Your task to perform on an android device: turn on javascript in the chrome app Image 0: 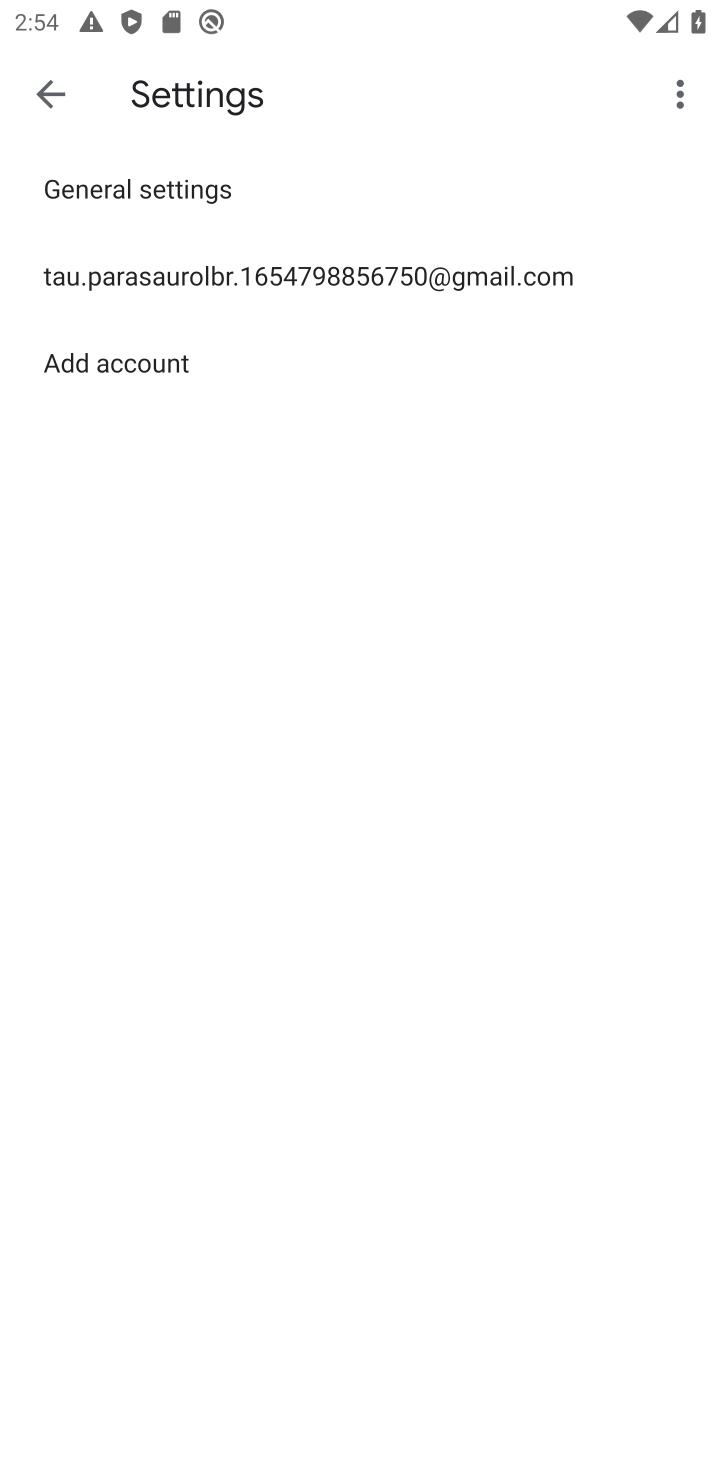
Step 0: press home button
Your task to perform on an android device: turn on javascript in the chrome app Image 1: 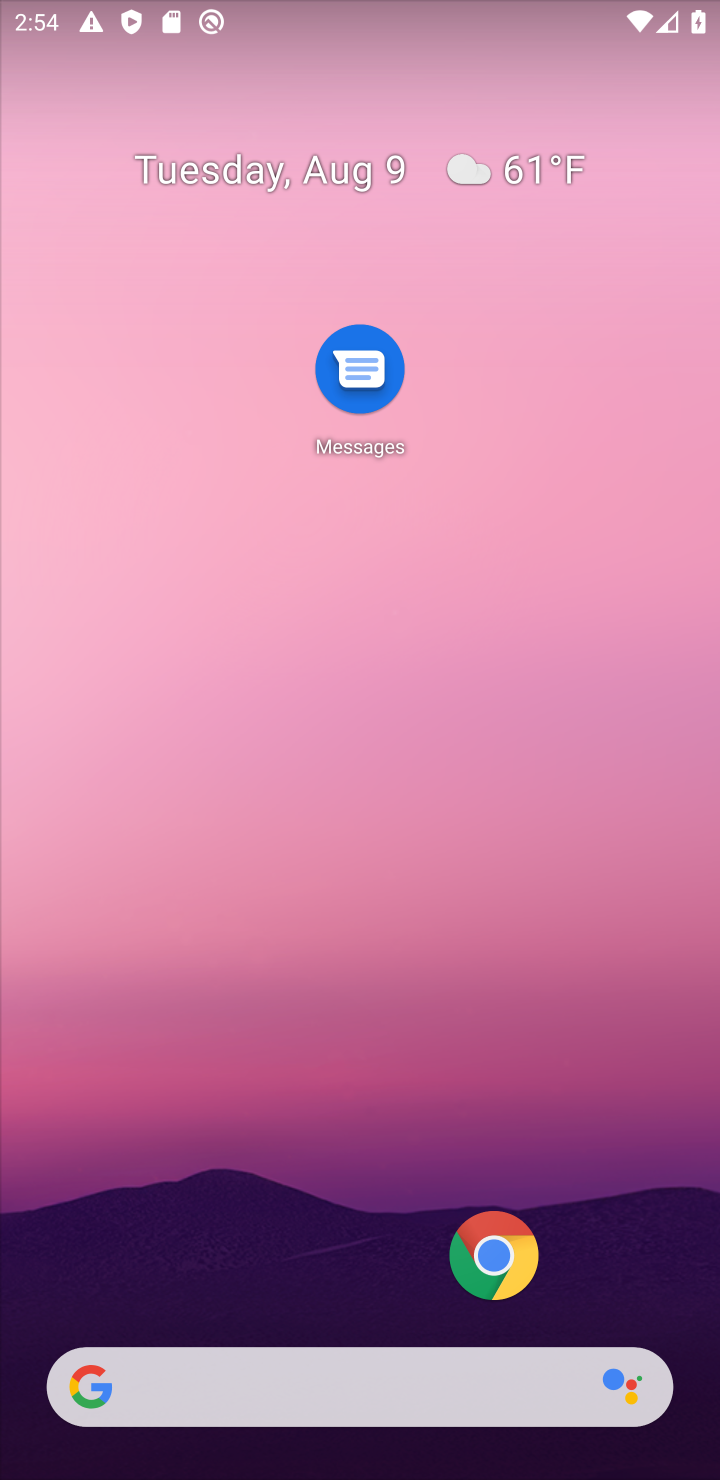
Step 1: drag from (301, 1266) to (329, 234)
Your task to perform on an android device: turn on javascript in the chrome app Image 2: 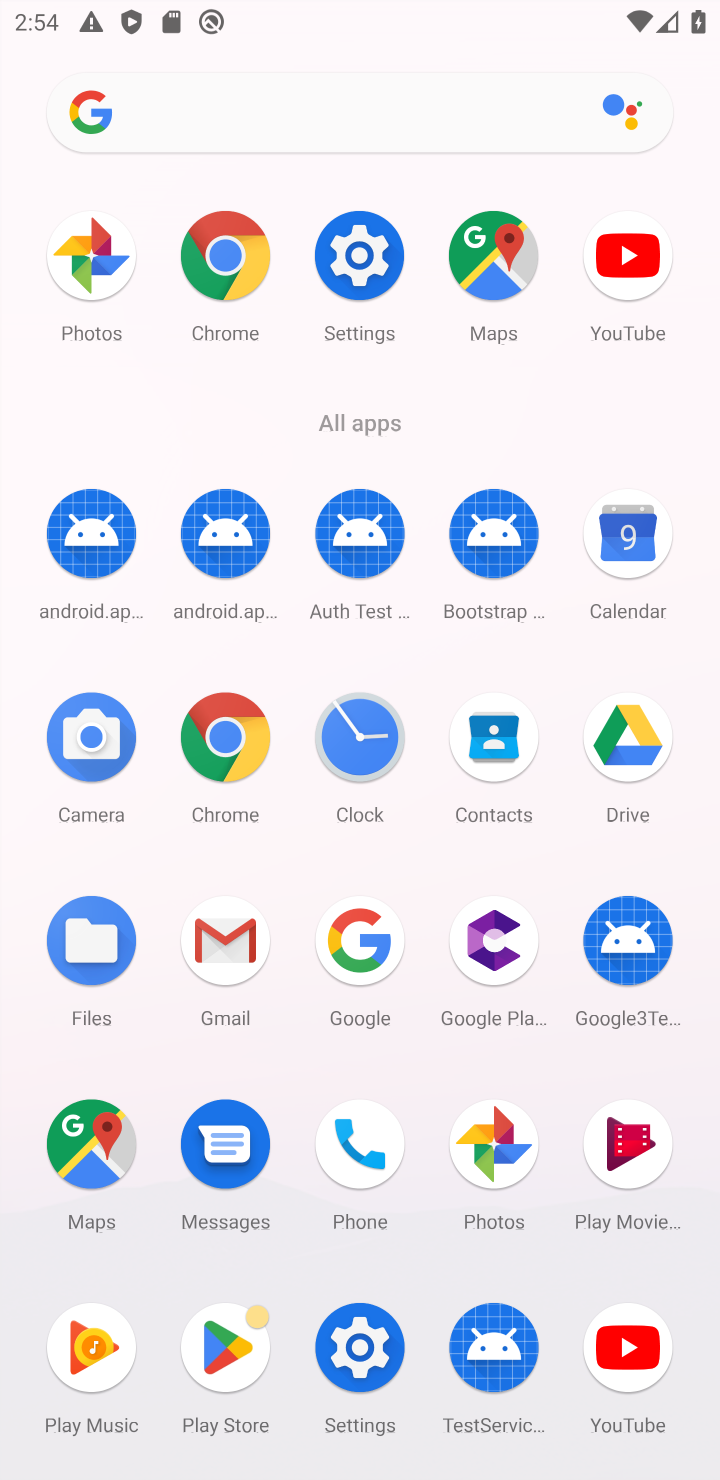
Step 2: drag from (225, 344) to (225, 269)
Your task to perform on an android device: turn on javascript in the chrome app Image 3: 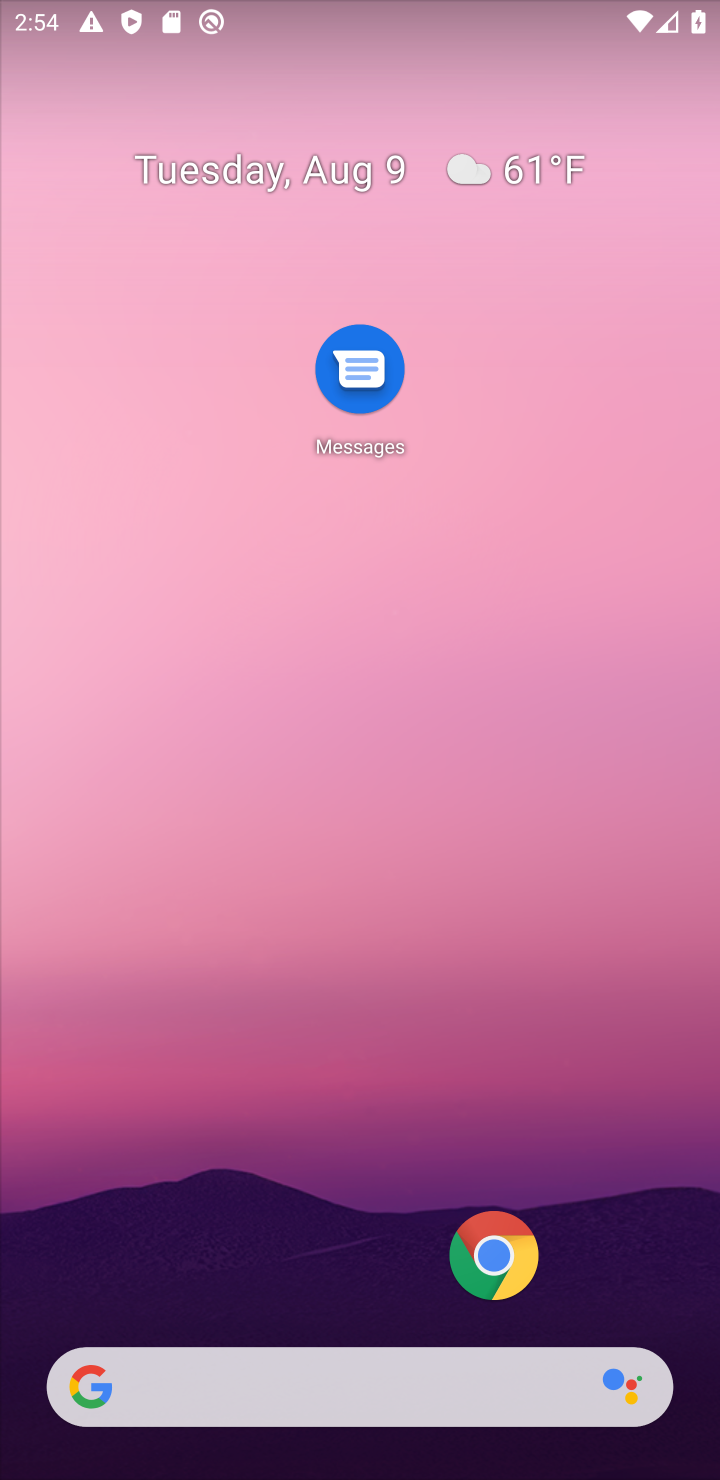
Step 3: click (218, 269)
Your task to perform on an android device: turn on javascript in the chrome app Image 4: 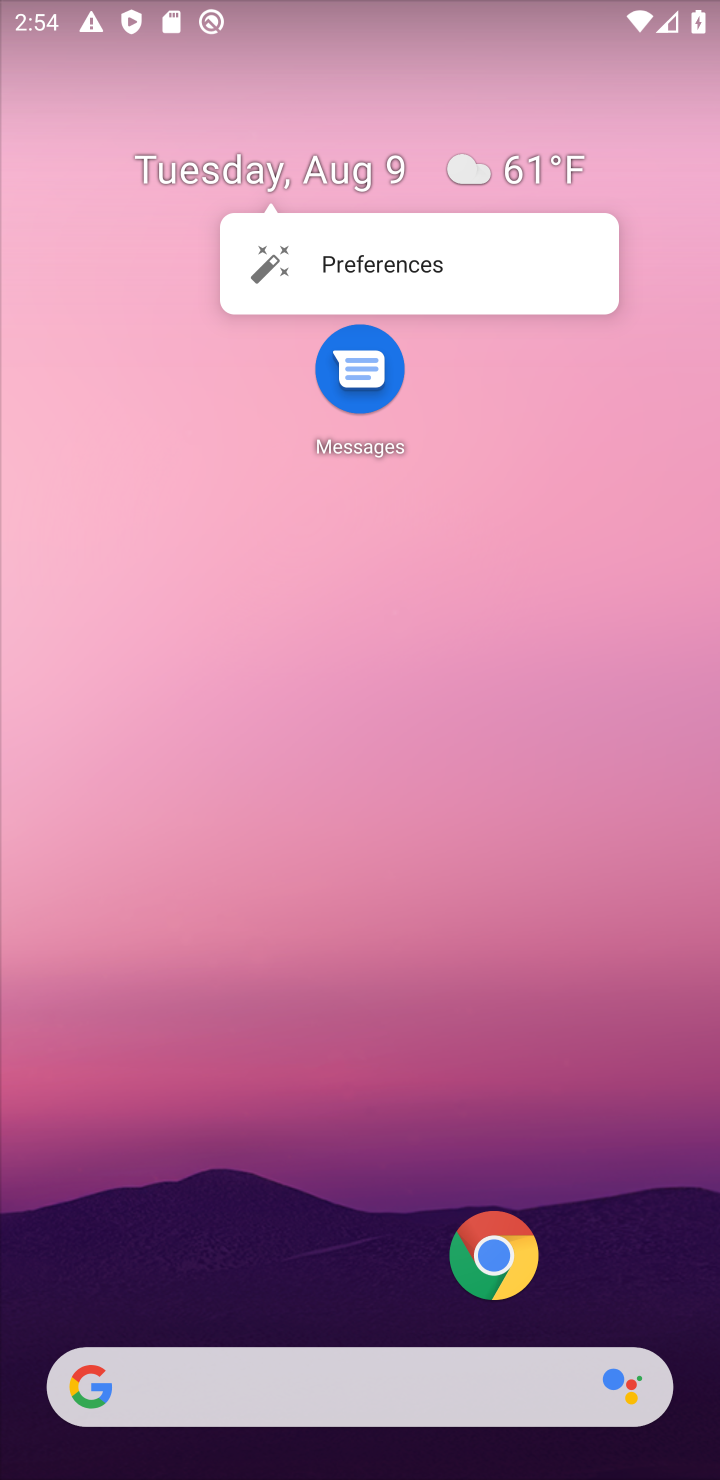
Step 4: click (521, 1245)
Your task to perform on an android device: turn on javascript in the chrome app Image 5: 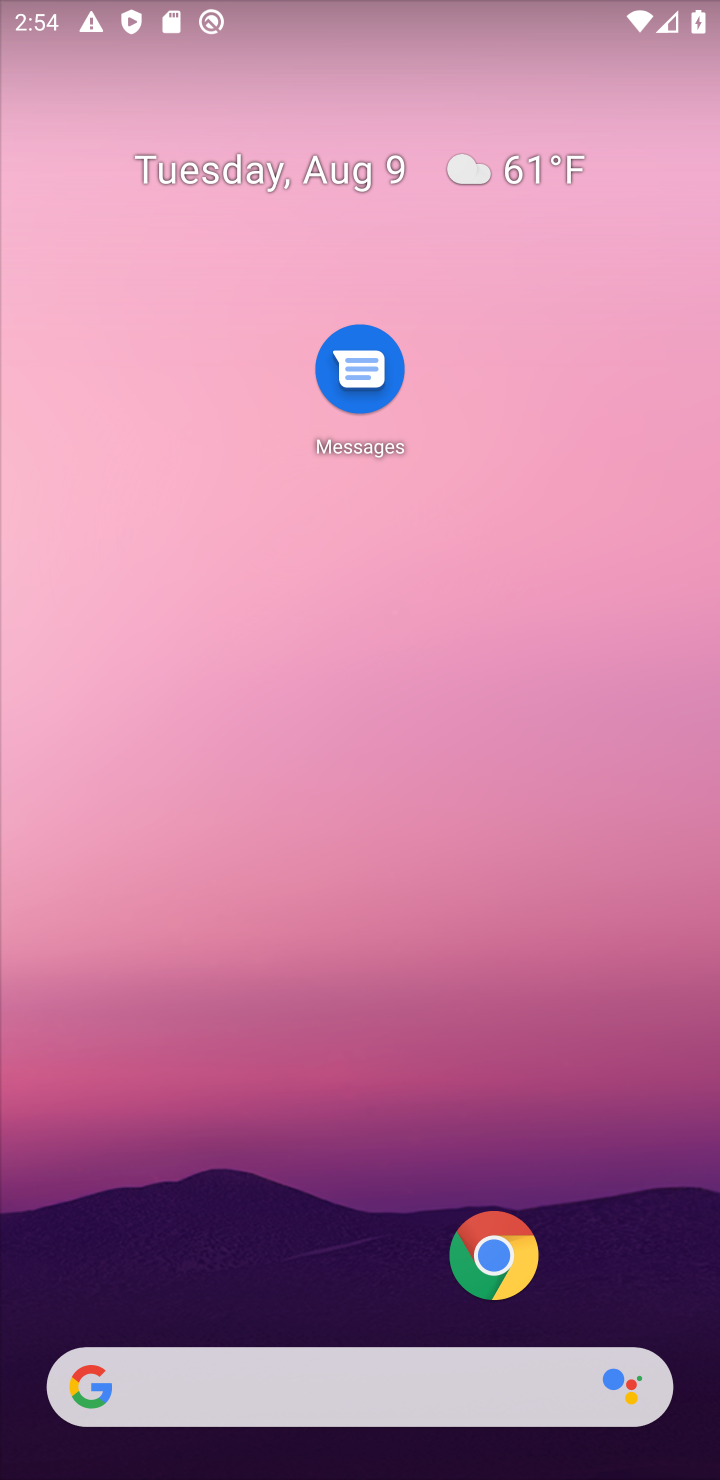
Step 5: click (503, 1279)
Your task to perform on an android device: turn on javascript in the chrome app Image 6: 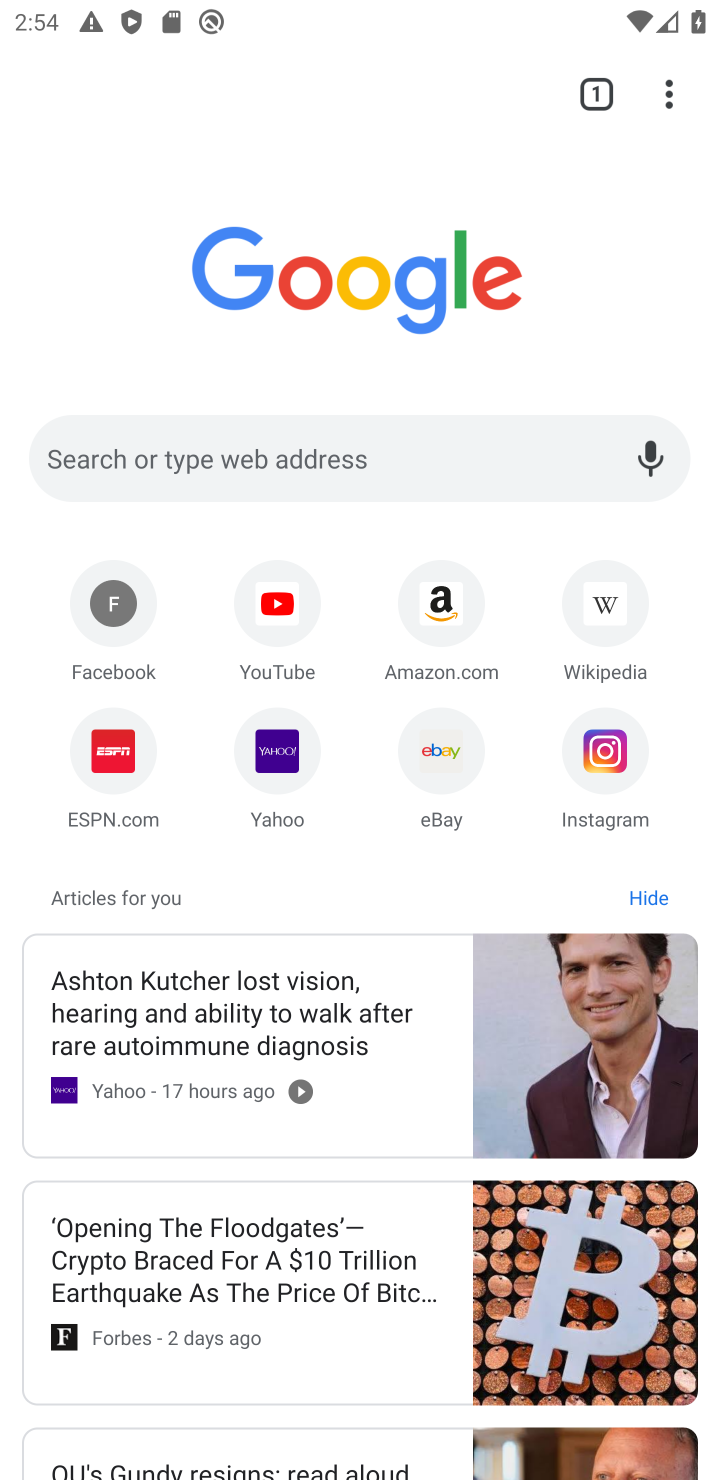
Step 6: click (686, 76)
Your task to perform on an android device: turn on javascript in the chrome app Image 7: 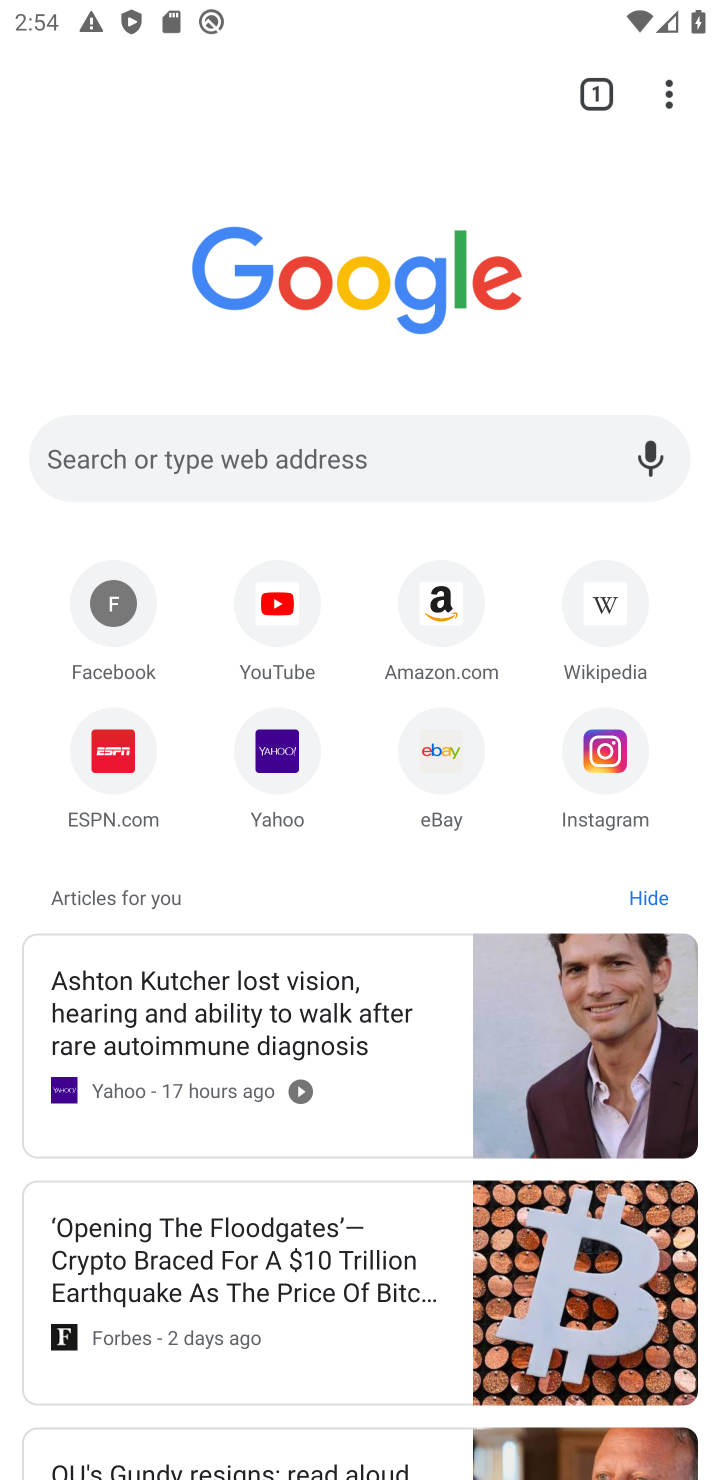
Step 7: click (679, 76)
Your task to perform on an android device: turn on javascript in the chrome app Image 8: 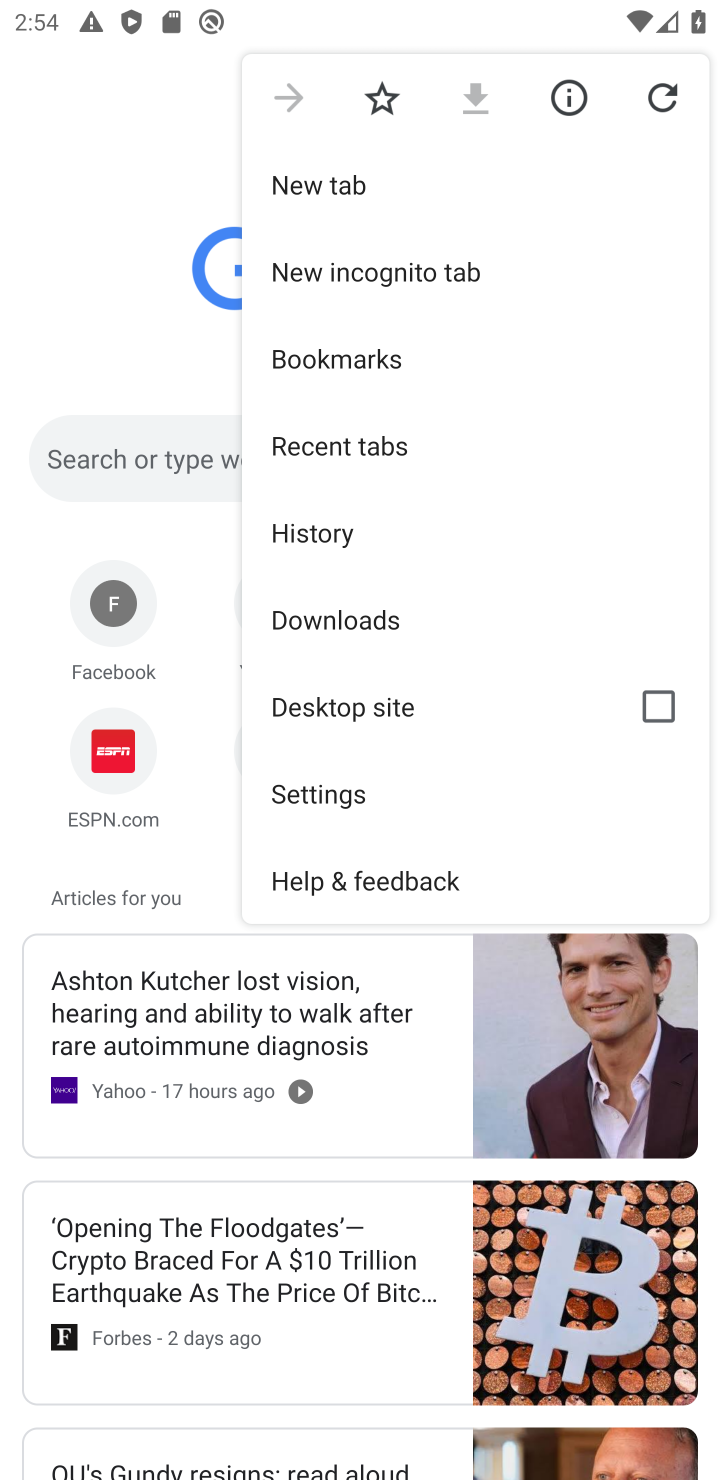
Step 8: click (333, 789)
Your task to perform on an android device: turn on javascript in the chrome app Image 9: 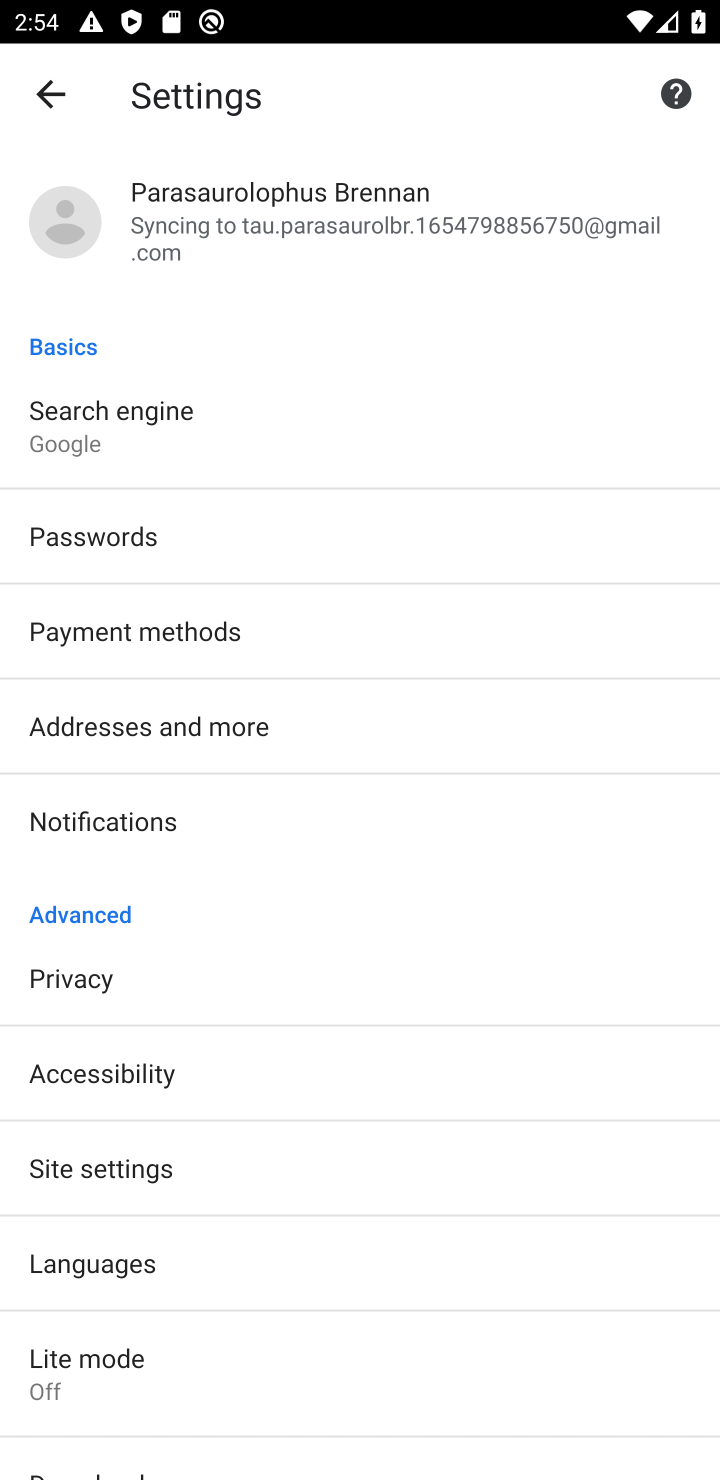
Step 9: click (163, 1152)
Your task to perform on an android device: turn on javascript in the chrome app Image 10: 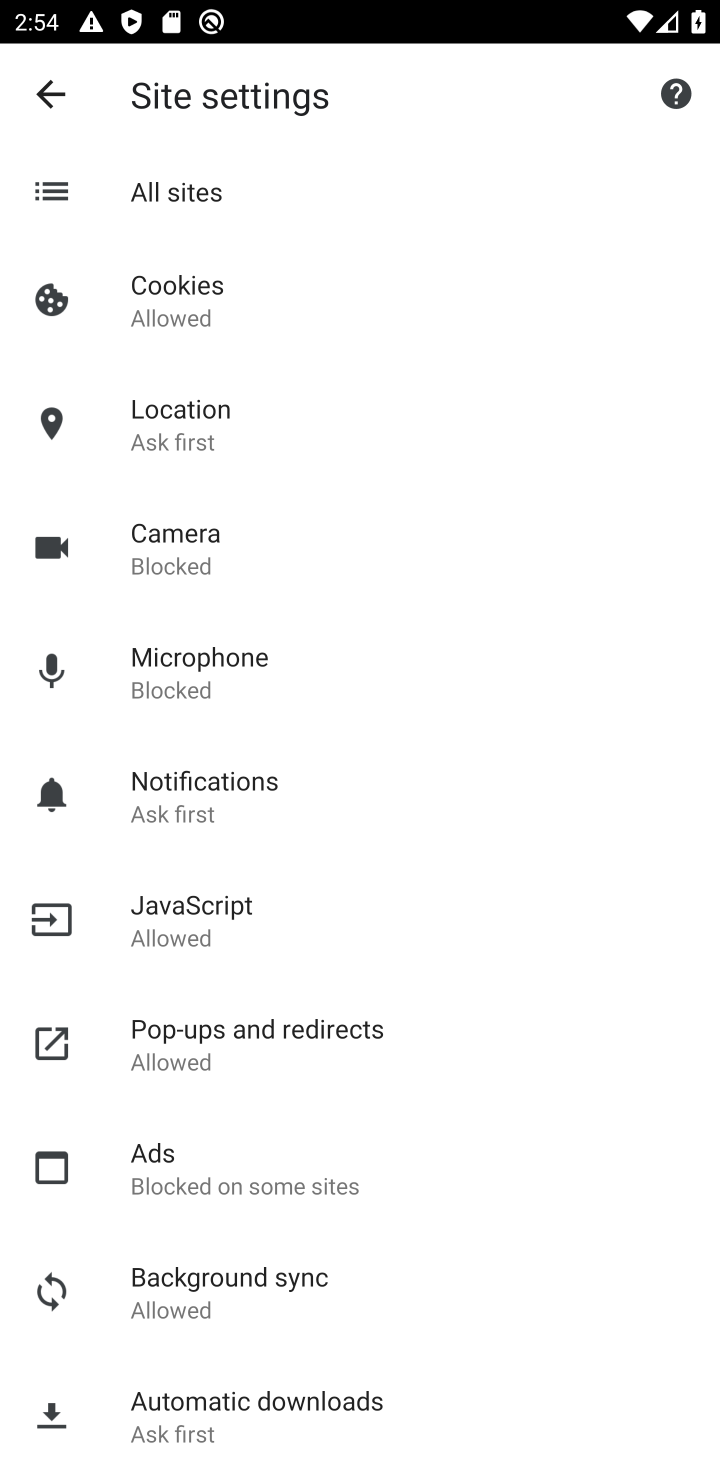
Step 10: click (233, 903)
Your task to perform on an android device: turn on javascript in the chrome app Image 11: 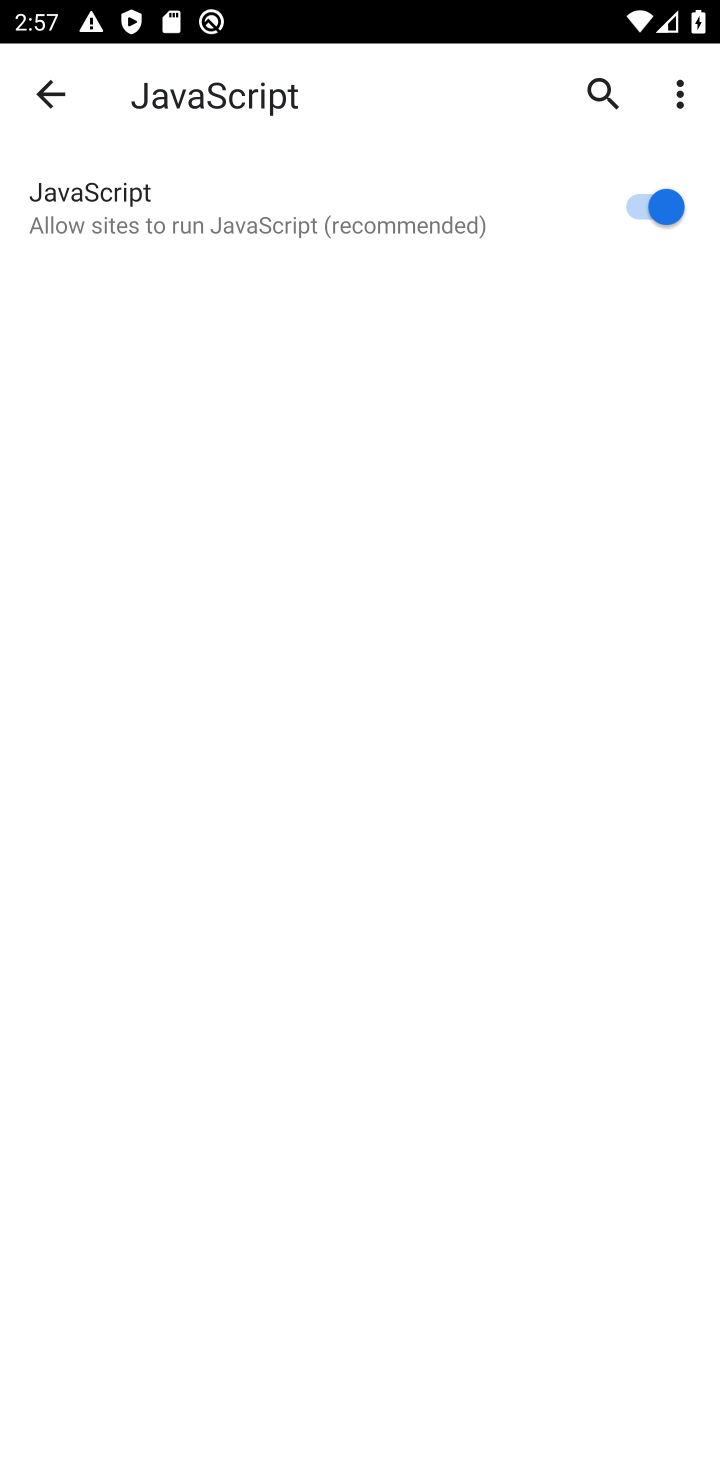
Step 11: task complete